Your task to perform on an android device: Open CNN.com Image 0: 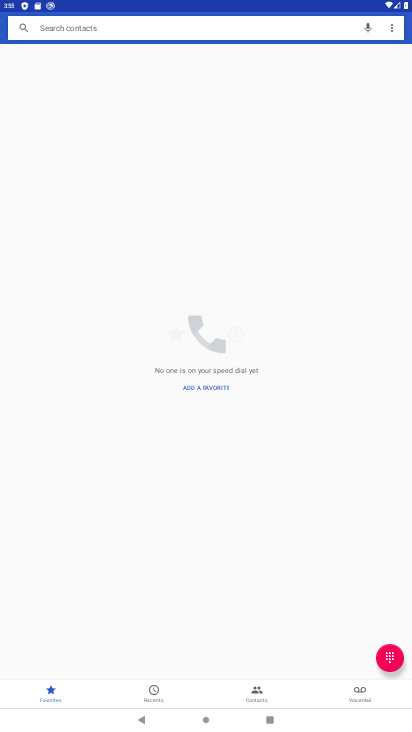
Step 0: press home button
Your task to perform on an android device: Open CNN.com Image 1: 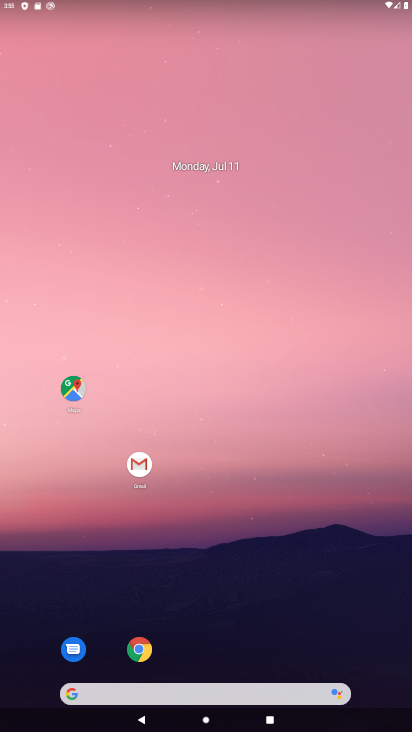
Step 1: click (130, 682)
Your task to perform on an android device: Open CNN.com Image 2: 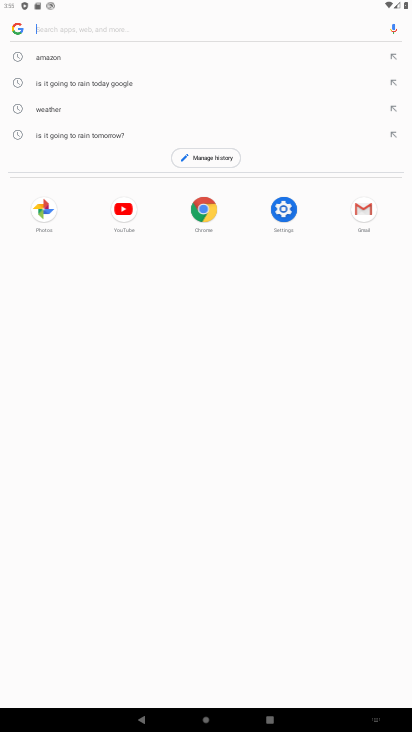
Step 2: type "CNN.com"
Your task to perform on an android device: Open CNN.com Image 3: 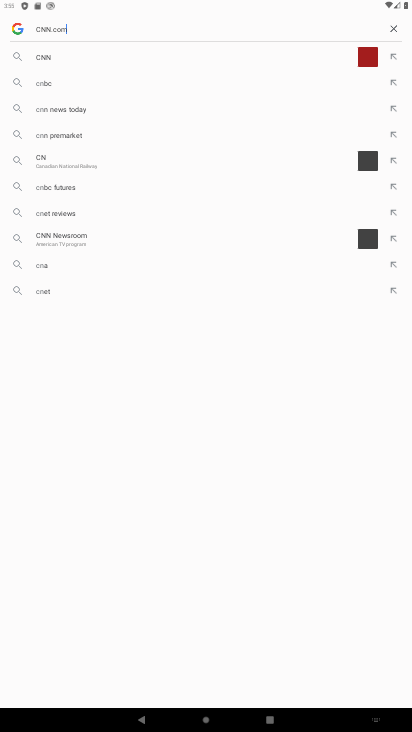
Step 3: type ""
Your task to perform on an android device: Open CNN.com Image 4: 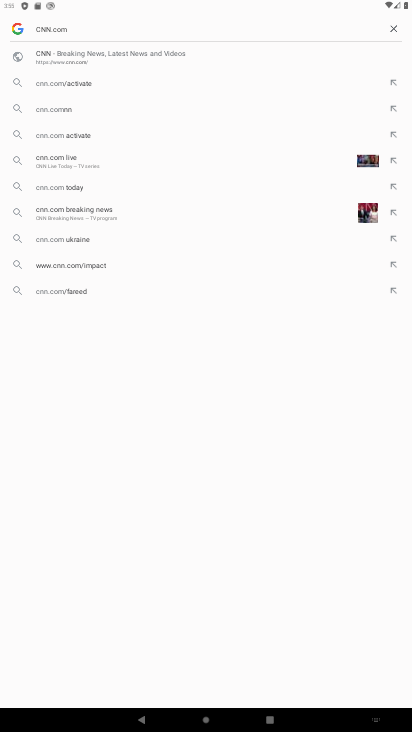
Step 4: type ""
Your task to perform on an android device: Open CNN.com Image 5: 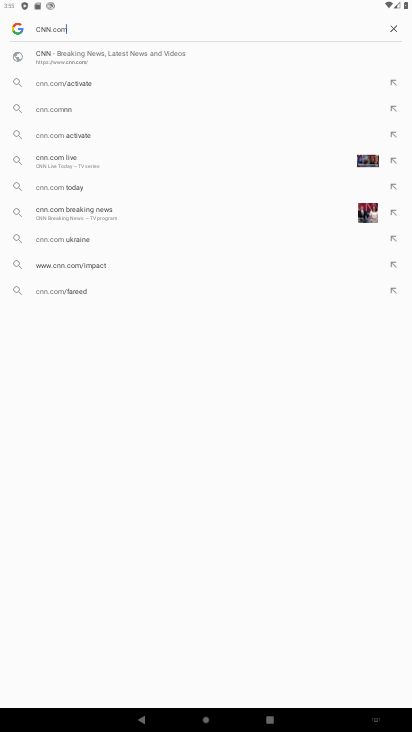
Step 5: type ""
Your task to perform on an android device: Open CNN.com Image 6: 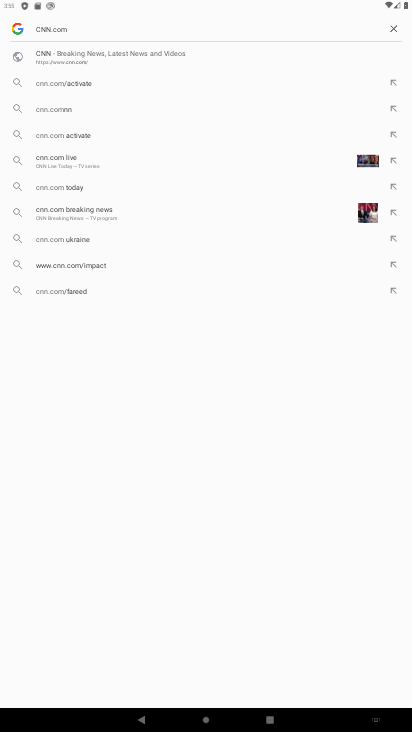
Step 6: type ""
Your task to perform on an android device: Open CNN.com Image 7: 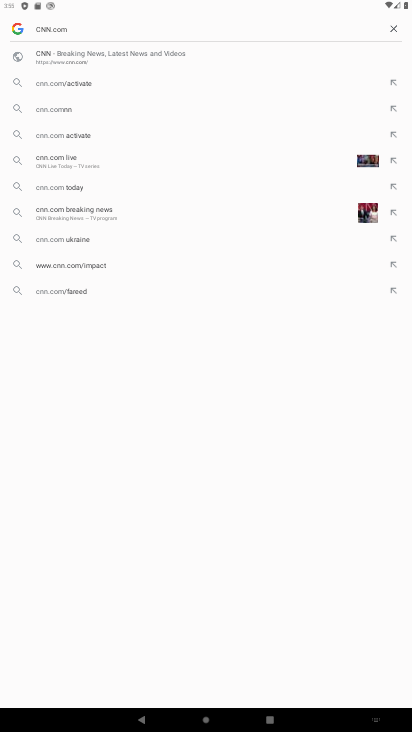
Step 7: type ""
Your task to perform on an android device: Open CNN.com Image 8: 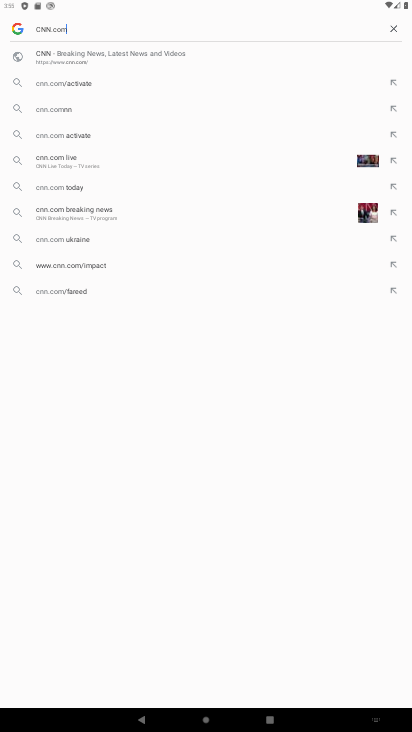
Step 8: type ""
Your task to perform on an android device: Open CNN.com Image 9: 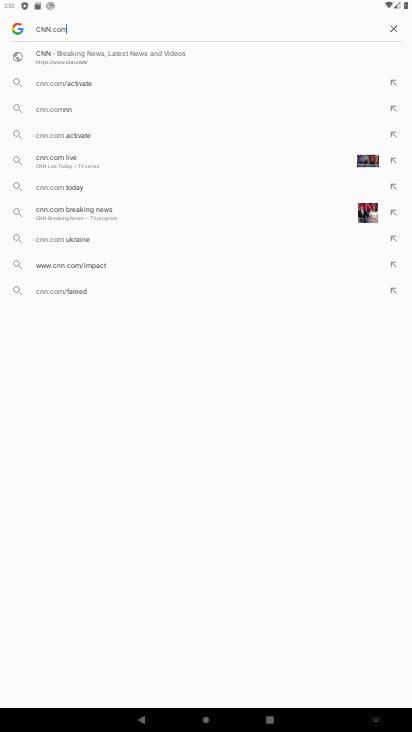
Step 9: click (131, 21)
Your task to perform on an android device: Open CNN.com Image 10: 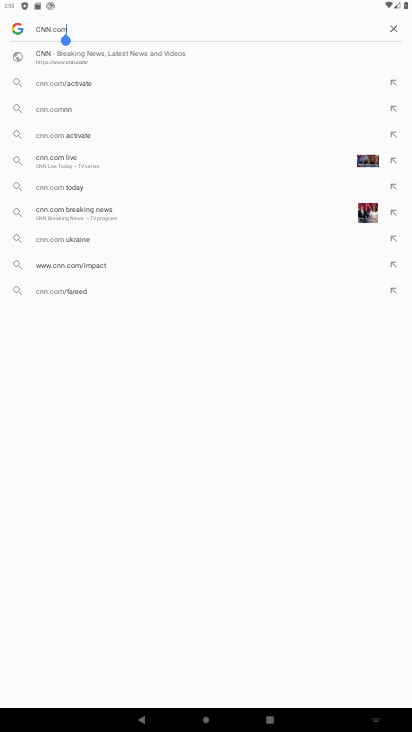
Step 10: task complete